Your task to perform on an android device: Open eBay Image 0: 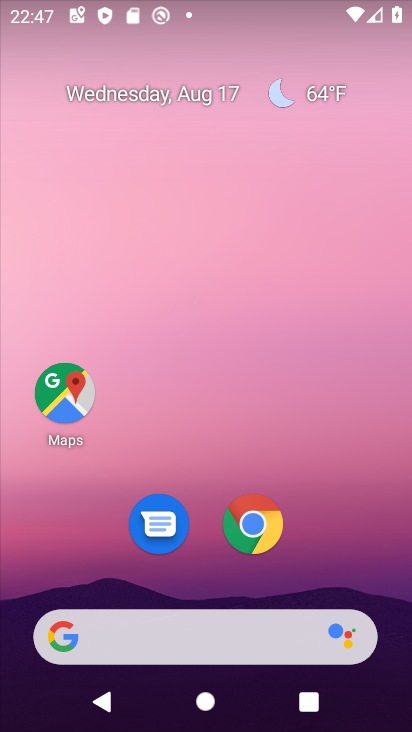
Step 0: click (215, 649)
Your task to perform on an android device: Open eBay Image 1: 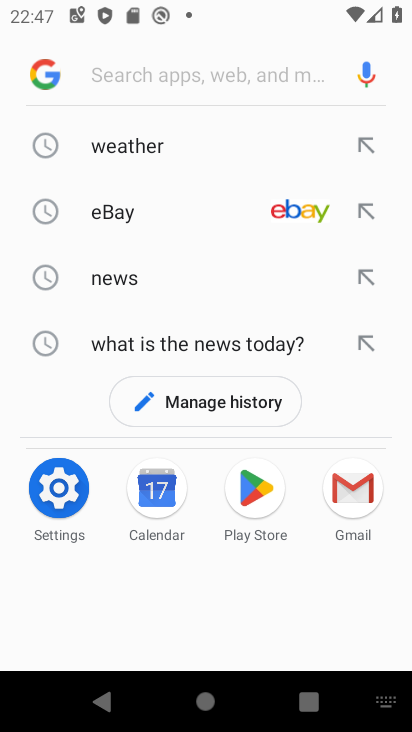
Step 1: click (239, 212)
Your task to perform on an android device: Open eBay Image 2: 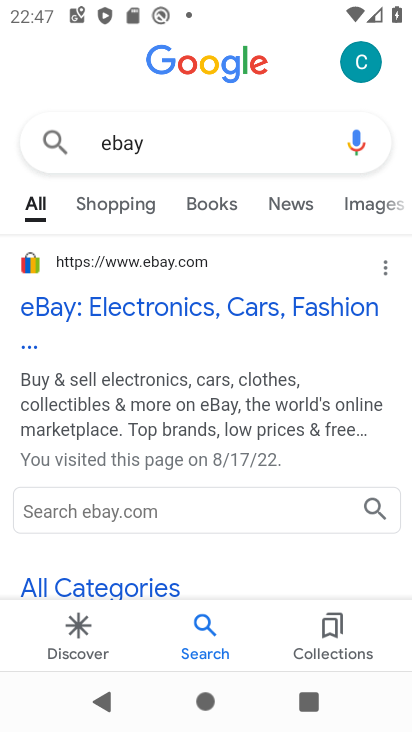
Step 2: click (65, 311)
Your task to perform on an android device: Open eBay Image 3: 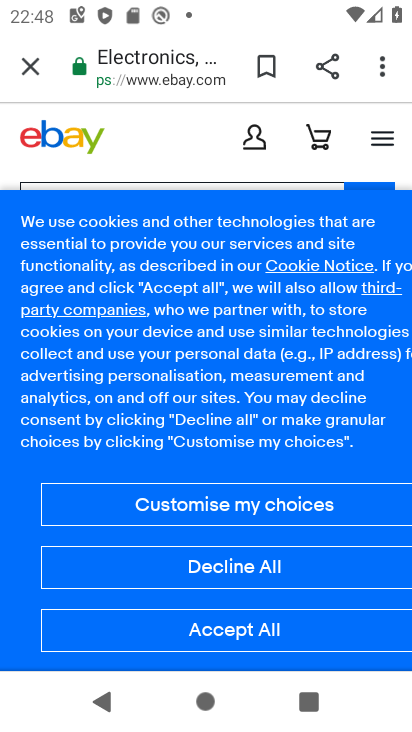
Step 3: click (273, 624)
Your task to perform on an android device: Open eBay Image 4: 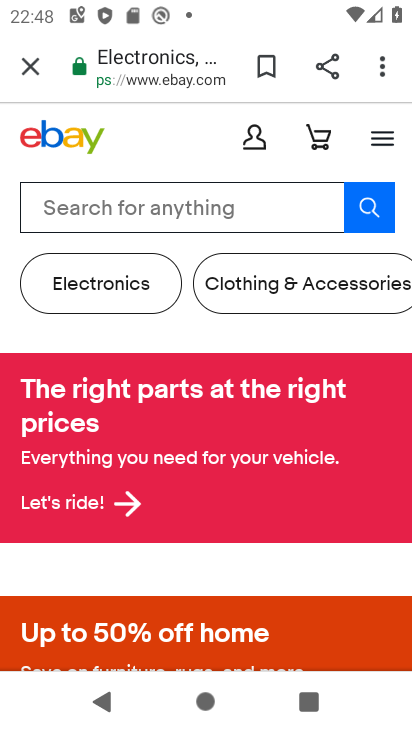
Step 4: task complete